Your task to perform on an android device: check battery use Image 0: 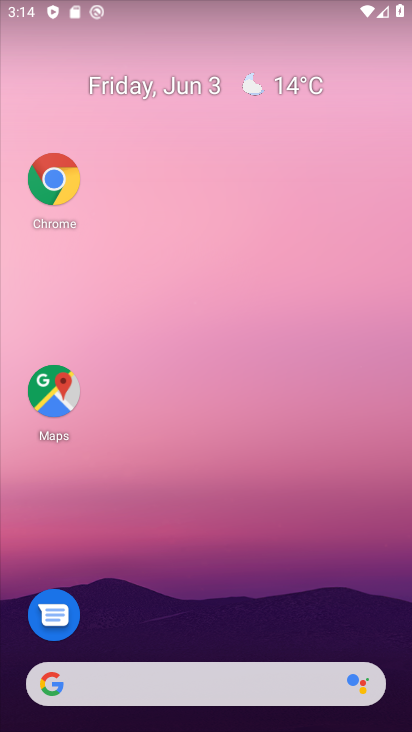
Step 0: drag from (131, 723) to (200, 174)
Your task to perform on an android device: check battery use Image 1: 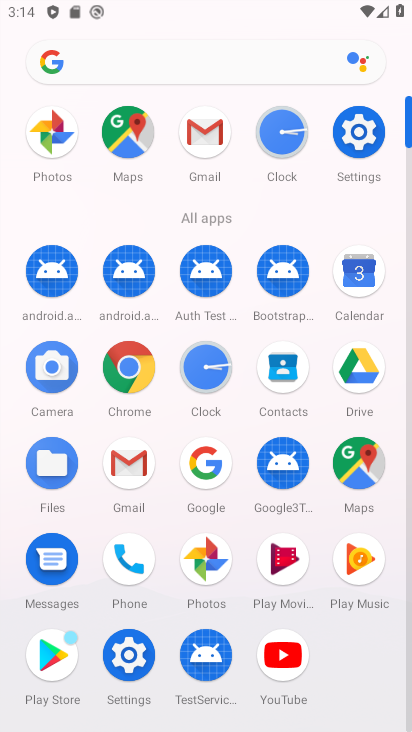
Step 1: click (138, 672)
Your task to perform on an android device: check battery use Image 2: 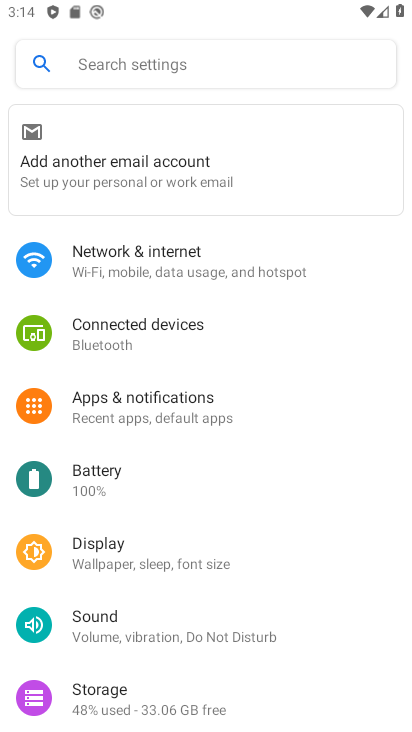
Step 2: click (104, 482)
Your task to perform on an android device: check battery use Image 3: 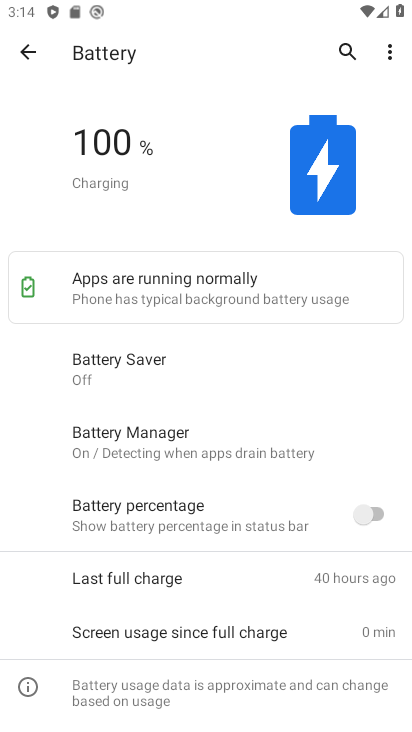
Step 3: click (384, 53)
Your task to perform on an android device: check battery use Image 4: 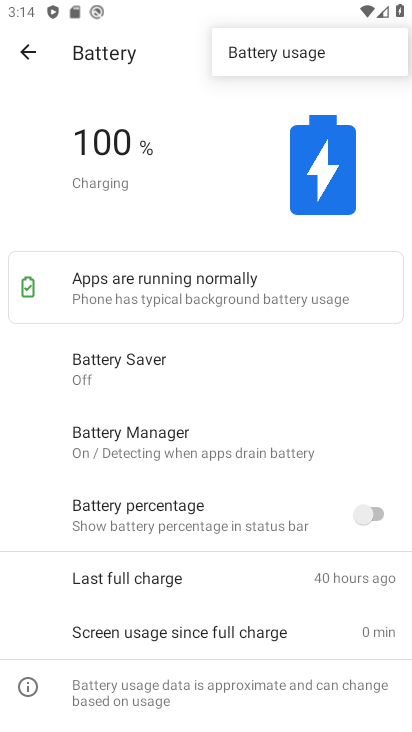
Step 4: click (300, 65)
Your task to perform on an android device: check battery use Image 5: 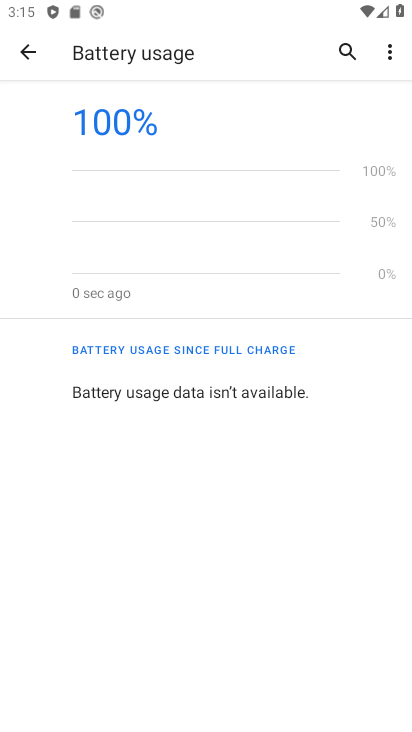
Step 5: task complete